Your task to perform on an android device: delete browsing data in the chrome app Image 0: 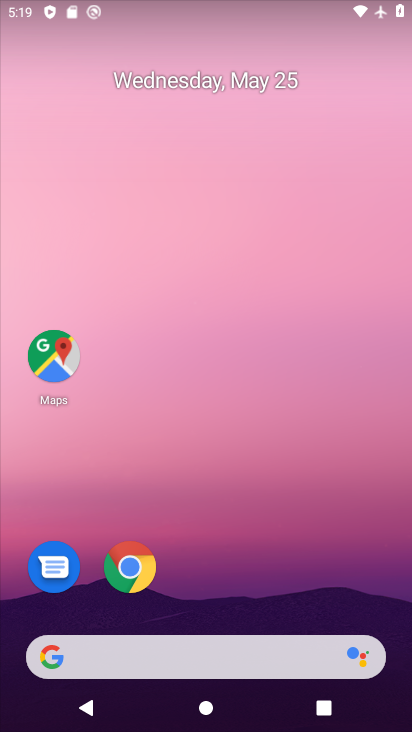
Step 0: drag from (204, 566) to (166, 1)
Your task to perform on an android device: delete browsing data in the chrome app Image 1: 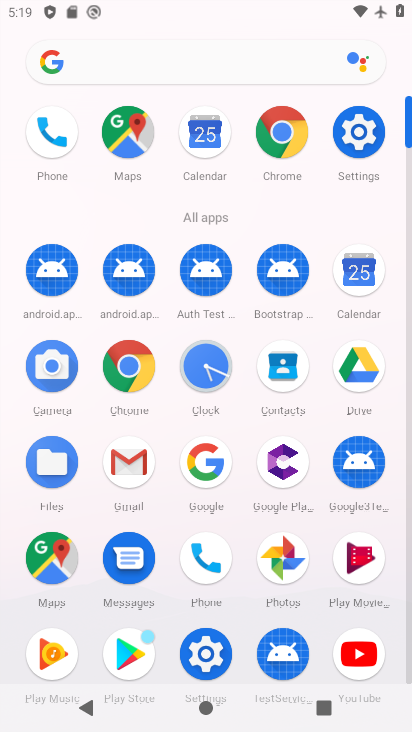
Step 1: drag from (1, 610) to (23, 261)
Your task to perform on an android device: delete browsing data in the chrome app Image 2: 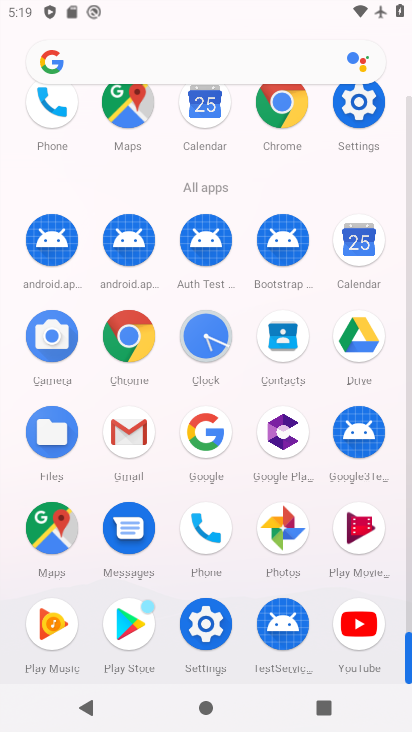
Step 2: click (125, 331)
Your task to perform on an android device: delete browsing data in the chrome app Image 3: 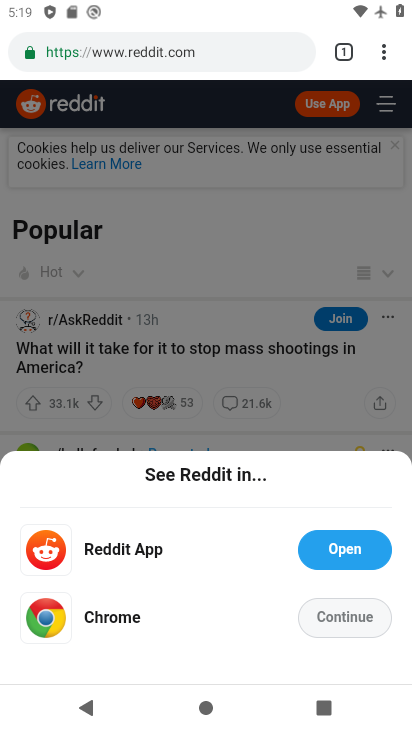
Step 3: drag from (378, 45) to (193, 292)
Your task to perform on an android device: delete browsing data in the chrome app Image 4: 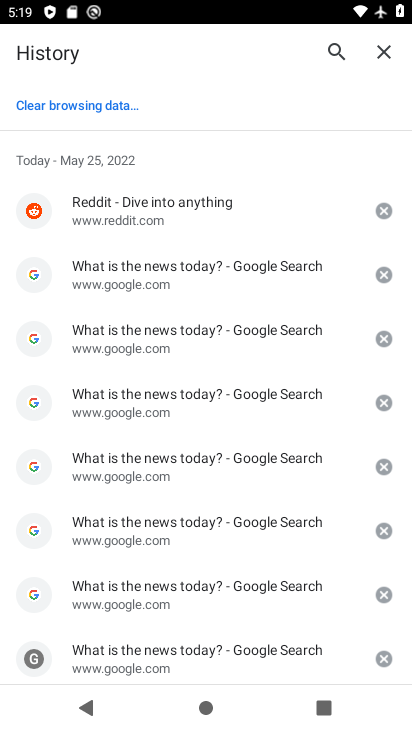
Step 4: click (89, 93)
Your task to perform on an android device: delete browsing data in the chrome app Image 5: 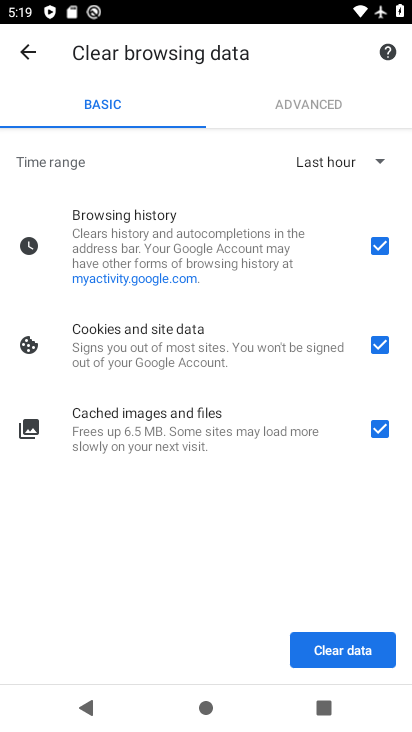
Step 5: click (370, 644)
Your task to perform on an android device: delete browsing data in the chrome app Image 6: 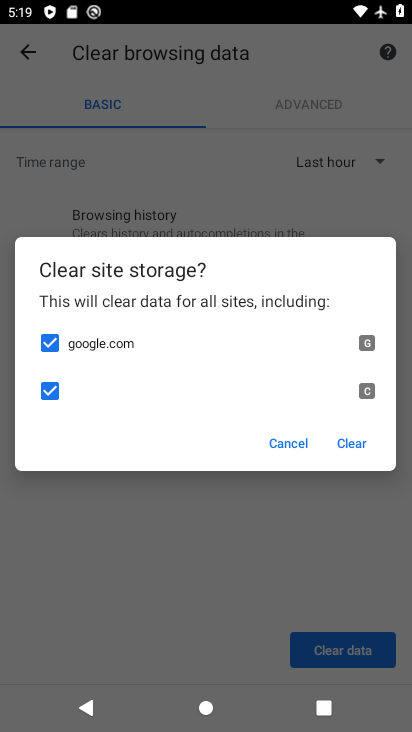
Step 6: click (345, 433)
Your task to perform on an android device: delete browsing data in the chrome app Image 7: 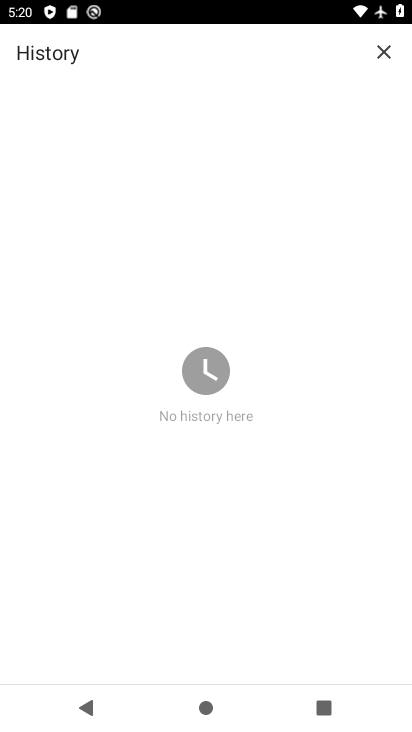
Step 7: task complete